Your task to perform on an android device: toggle notifications settings in the gmail app Image 0: 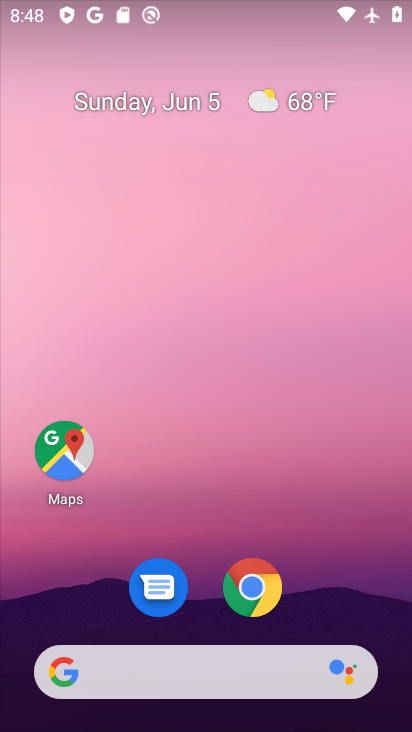
Step 0: drag from (326, 592) to (329, 194)
Your task to perform on an android device: toggle notifications settings in the gmail app Image 1: 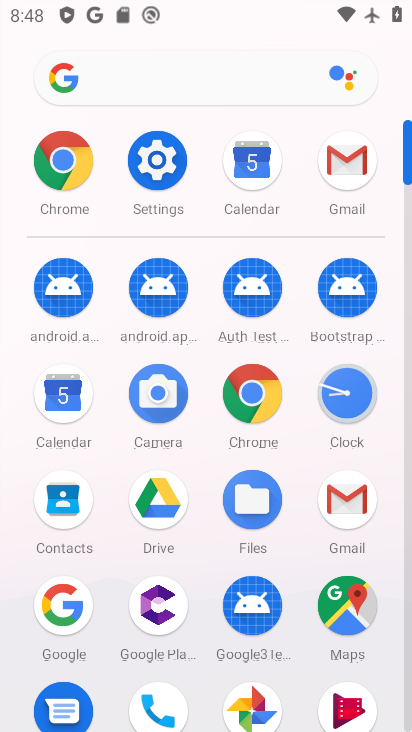
Step 1: click (329, 194)
Your task to perform on an android device: toggle notifications settings in the gmail app Image 2: 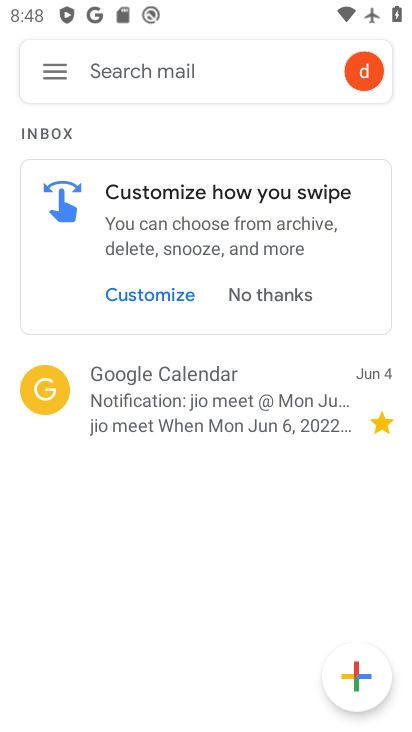
Step 2: press back button
Your task to perform on an android device: toggle notifications settings in the gmail app Image 3: 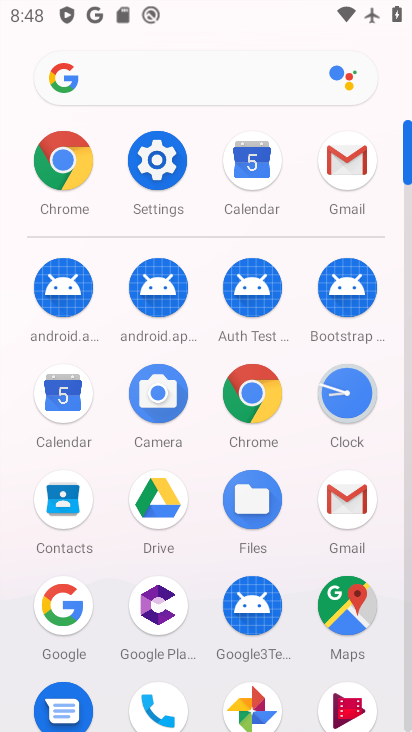
Step 3: click (353, 518)
Your task to perform on an android device: toggle notifications settings in the gmail app Image 4: 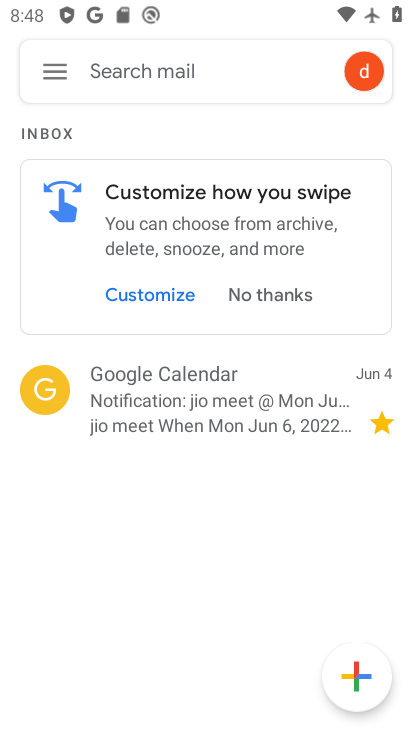
Step 4: click (59, 69)
Your task to perform on an android device: toggle notifications settings in the gmail app Image 5: 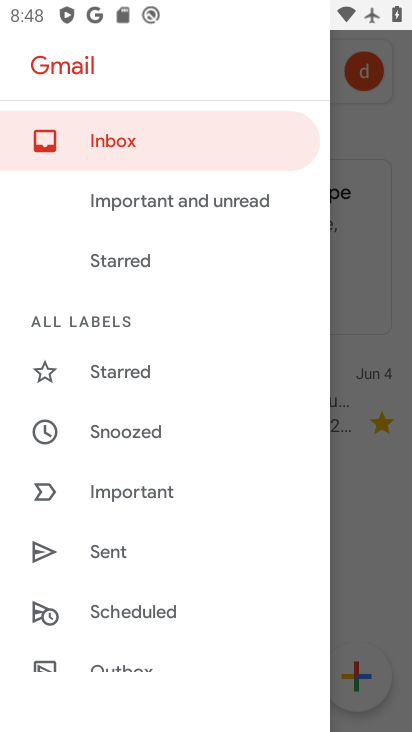
Step 5: drag from (114, 651) to (103, 413)
Your task to perform on an android device: toggle notifications settings in the gmail app Image 6: 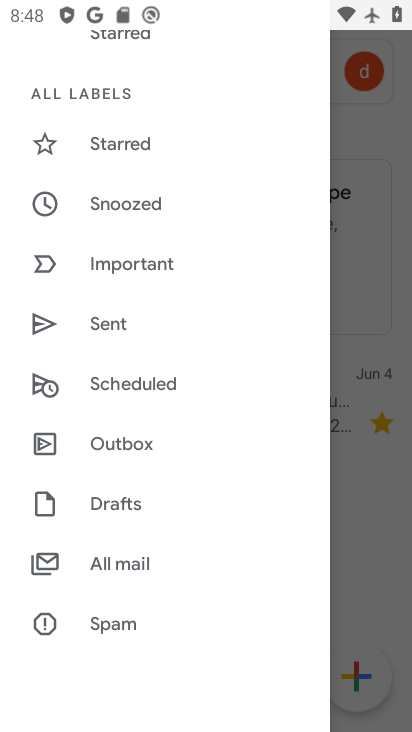
Step 6: drag from (111, 618) to (96, 230)
Your task to perform on an android device: toggle notifications settings in the gmail app Image 7: 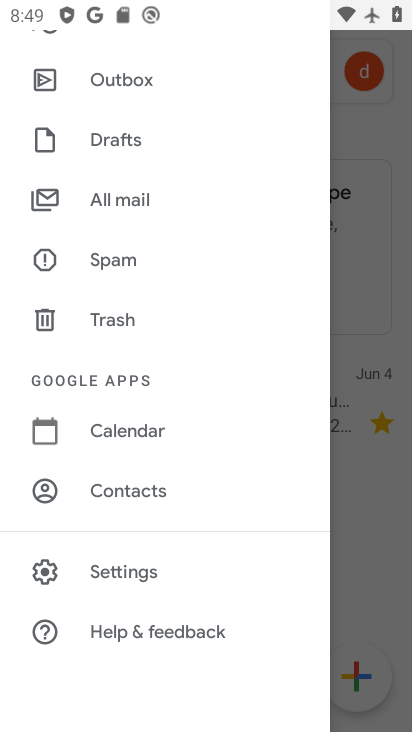
Step 7: click (139, 562)
Your task to perform on an android device: toggle notifications settings in the gmail app Image 8: 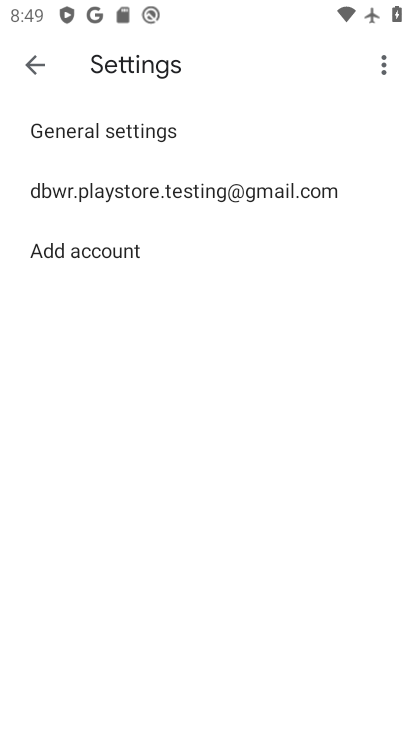
Step 8: click (117, 186)
Your task to perform on an android device: toggle notifications settings in the gmail app Image 9: 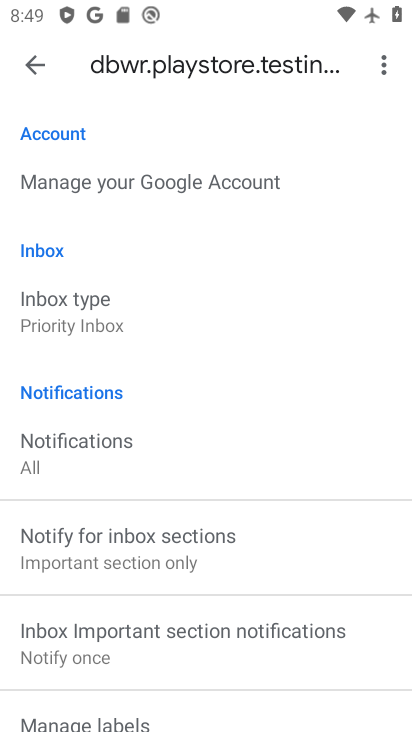
Step 9: click (105, 430)
Your task to perform on an android device: toggle notifications settings in the gmail app Image 10: 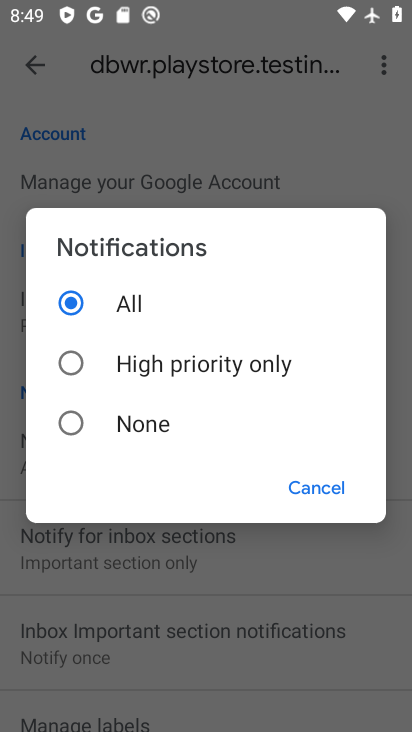
Step 10: click (327, 476)
Your task to perform on an android device: toggle notifications settings in the gmail app Image 11: 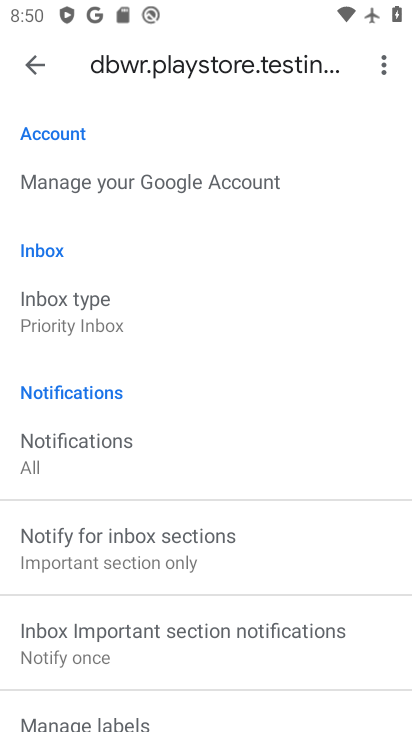
Step 11: click (67, 435)
Your task to perform on an android device: toggle notifications settings in the gmail app Image 12: 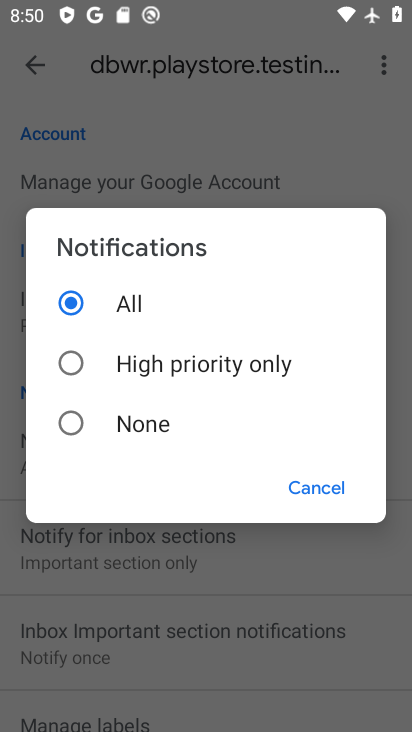
Step 12: click (322, 491)
Your task to perform on an android device: toggle notifications settings in the gmail app Image 13: 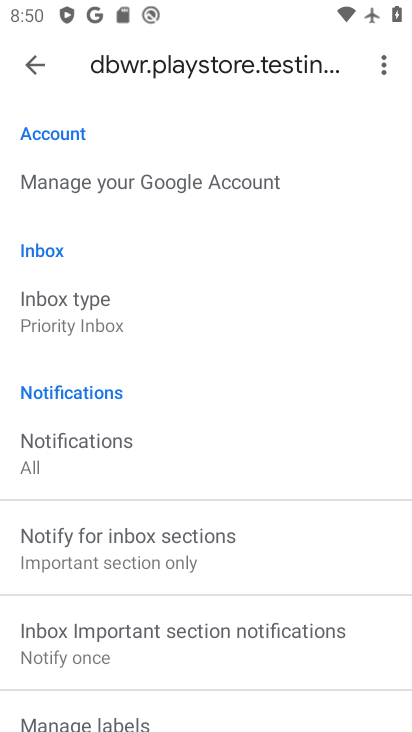
Step 13: task complete